Your task to perform on an android device: change the clock style Image 0: 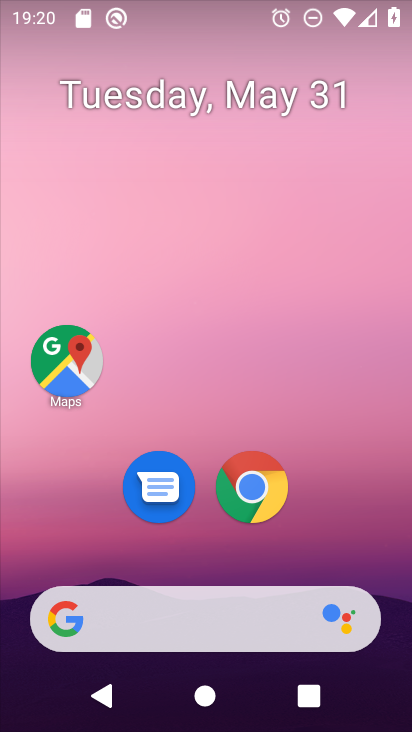
Step 0: drag from (340, 518) to (220, 189)
Your task to perform on an android device: change the clock style Image 1: 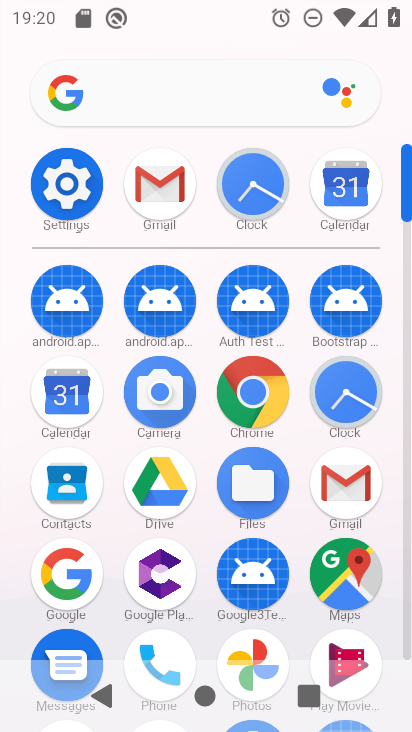
Step 1: click (253, 186)
Your task to perform on an android device: change the clock style Image 2: 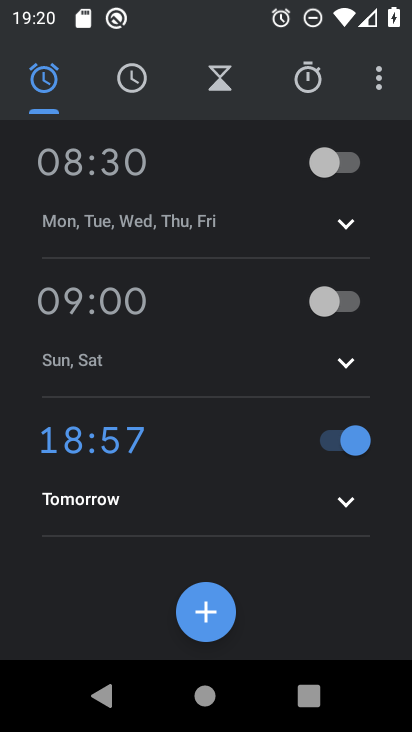
Step 2: click (383, 70)
Your task to perform on an android device: change the clock style Image 3: 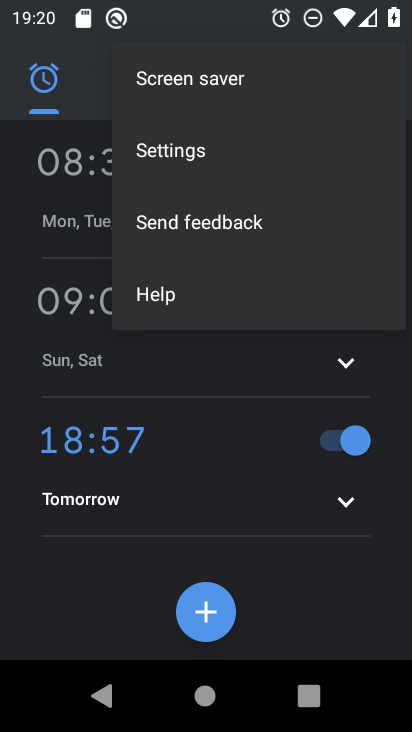
Step 3: click (175, 150)
Your task to perform on an android device: change the clock style Image 4: 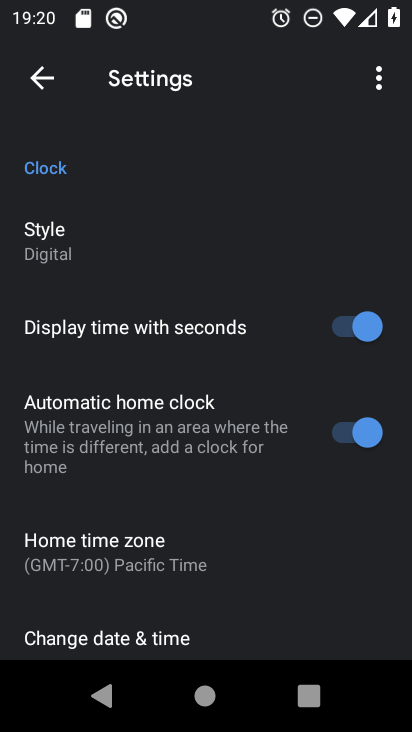
Step 4: click (52, 241)
Your task to perform on an android device: change the clock style Image 5: 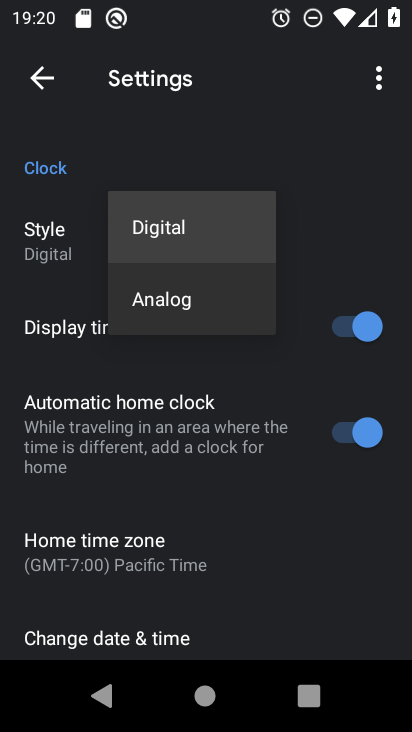
Step 5: click (155, 300)
Your task to perform on an android device: change the clock style Image 6: 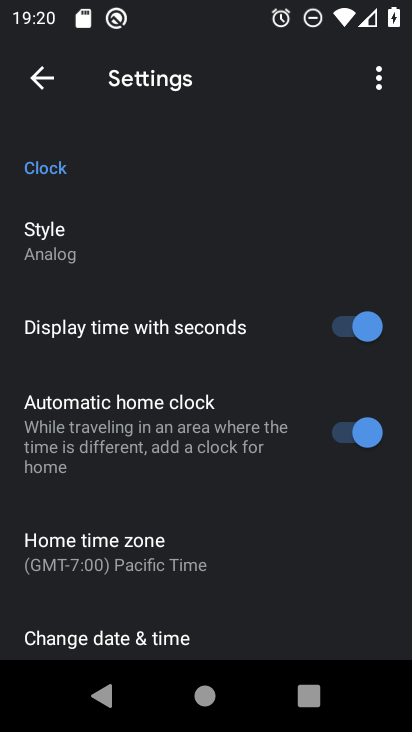
Step 6: task complete